Your task to perform on an android device: open the mobile data screen to see how much data has been used Image 0: 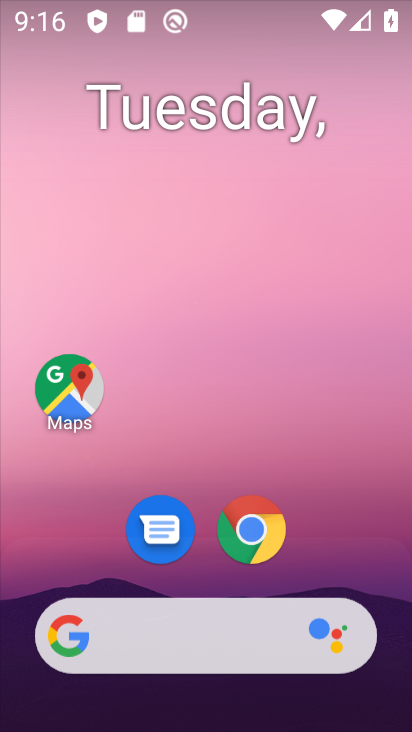
Step 0: click (404, 288)
Your task to perform on an android device: open the mobile data screen to see how much data has been used Image 1: 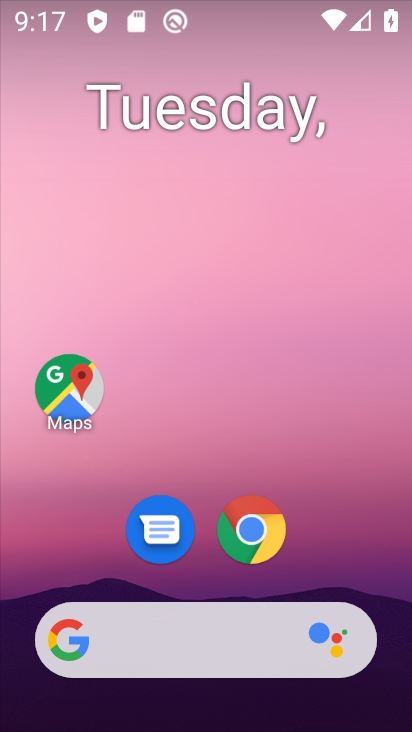
Step 1: drag from (294, 545) to (211, 1)
Your task to perform on an android device: open the mobile data screen to see how much data has been used Image 2: 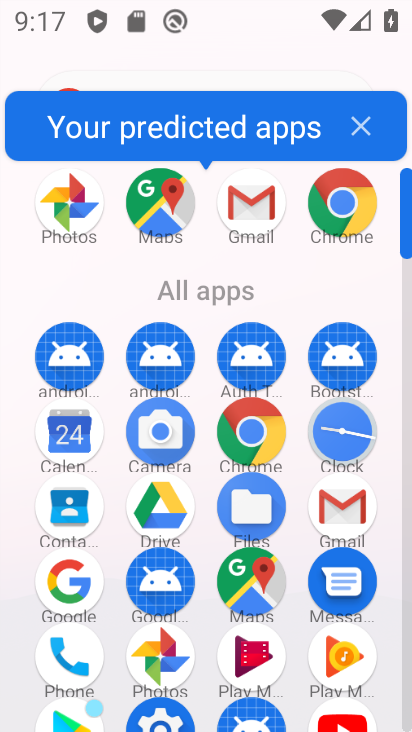
Step 2: drag from (188, 671) to (166, 400)
Your task to perform on an android device: open the mobile data screen to see how much data has been used Image 3: 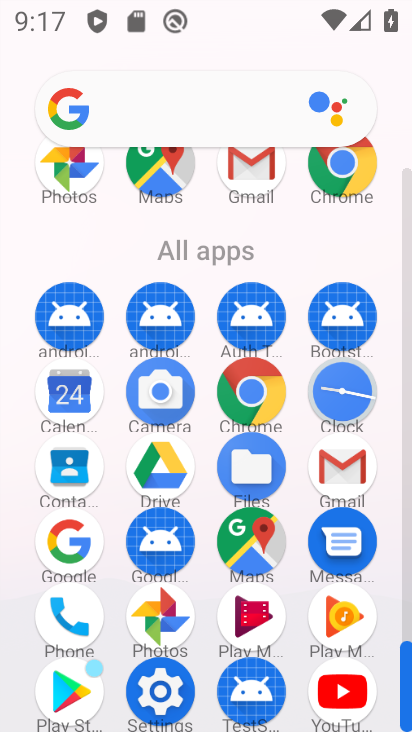
Step 3: click (167, 672)
Your task to perform on an android device: open the mobile data screen to see how much data has been used Image 4: 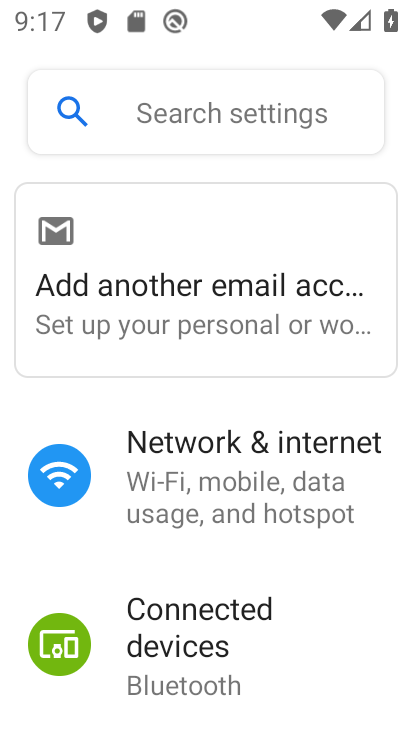
Step 4: click (246, 444)
Your task to perform on an android device: open the mobile data screen to see how much data has been used Image 5: 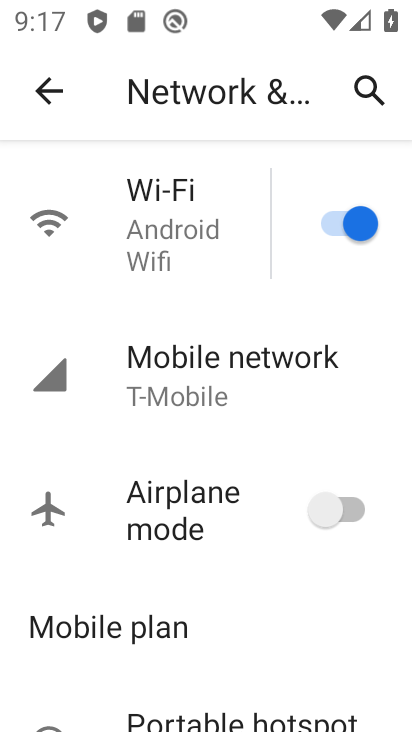
Step 5: click (245, 360)
Your task to perform on an android device: open the mobile data screen to see how much data has been used Image 6: 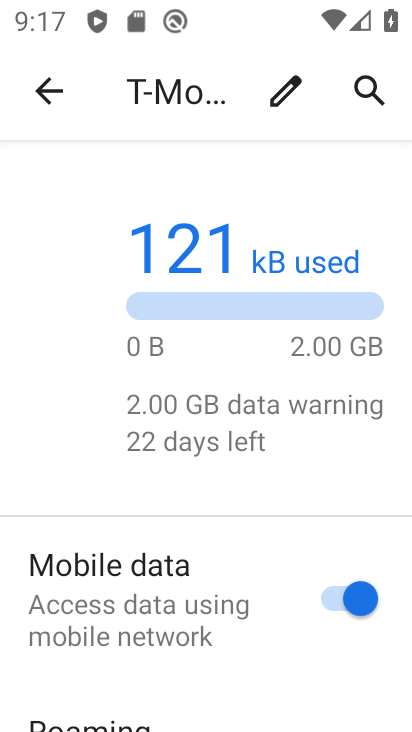
Step 6: task complete